Your task to perform on an android device: check battery use Image 0: 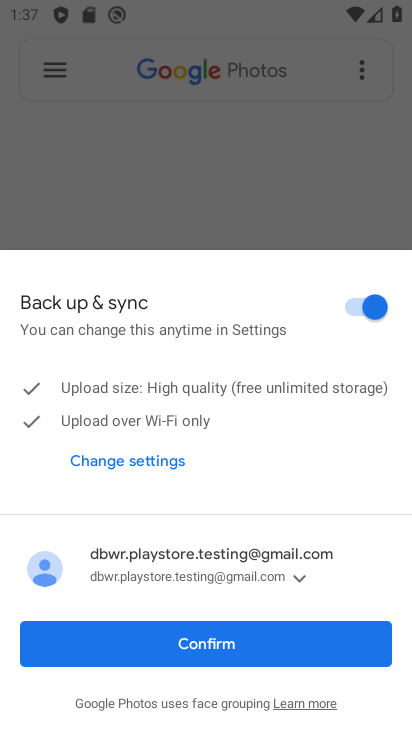
Step 0: press home button
Your task to perform on an android device: check battery use Image 1: 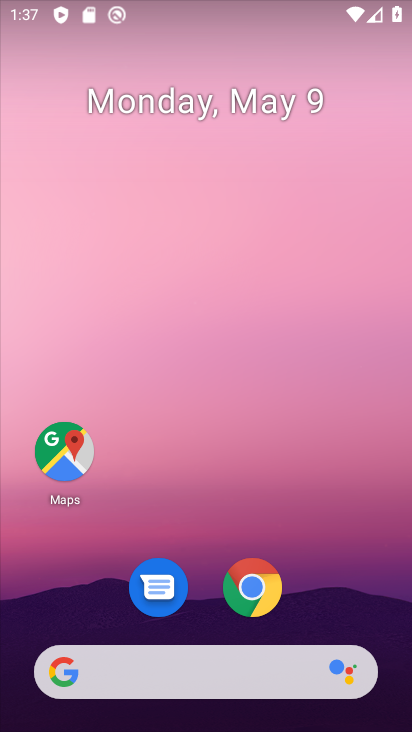
Step 1: drag from (197, 544) to (232, 141)
Your task to perform on an android device: check battery use Image 2: 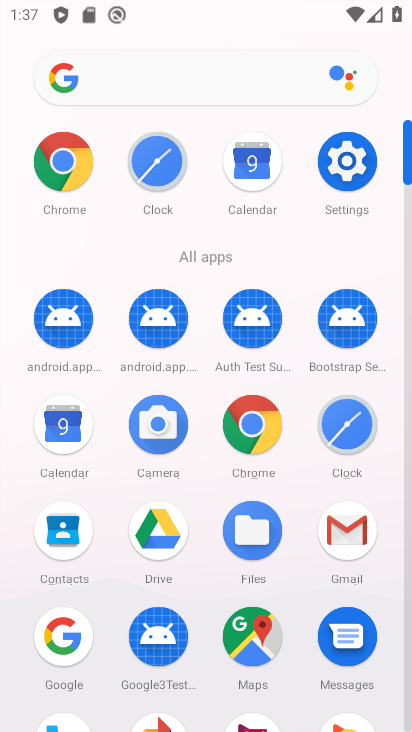
Step 2: click (332, 149)
Your task to perform on an android device: check battery use Image 3: 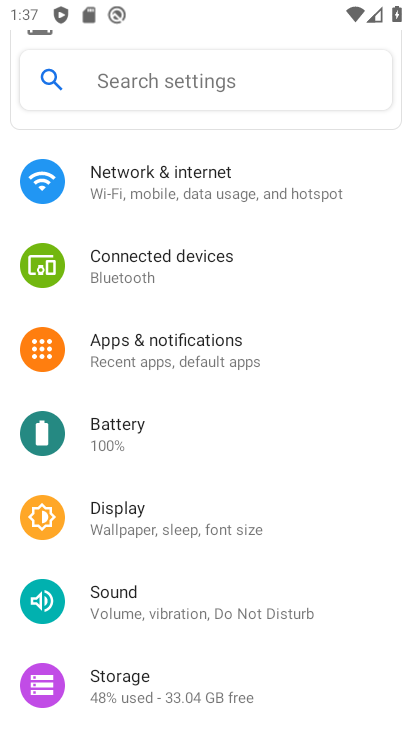
Step 3: click (109, 464)
Your task to perform on an android device: check battery use Image 4: 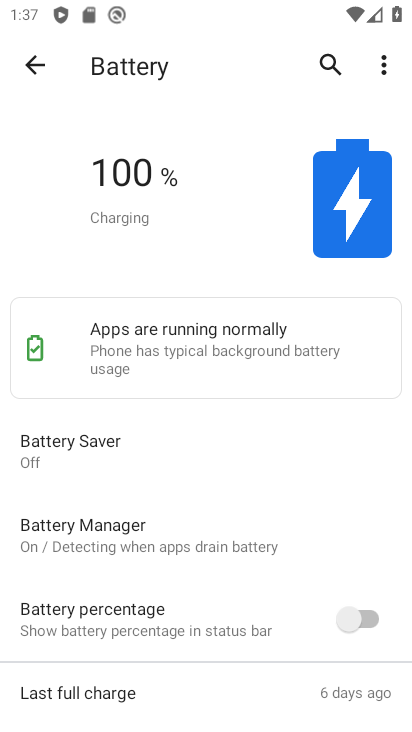
Step 4: task complete